Your task to perform on an android device: turn on translation in the chrome app Image 0: 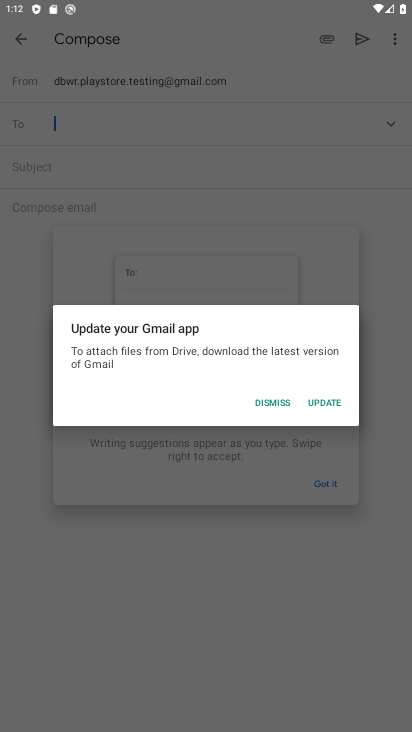
Step 0: click (315, 477)
Your task to perform on an android device: turn on translation in the chrome app Image 1: 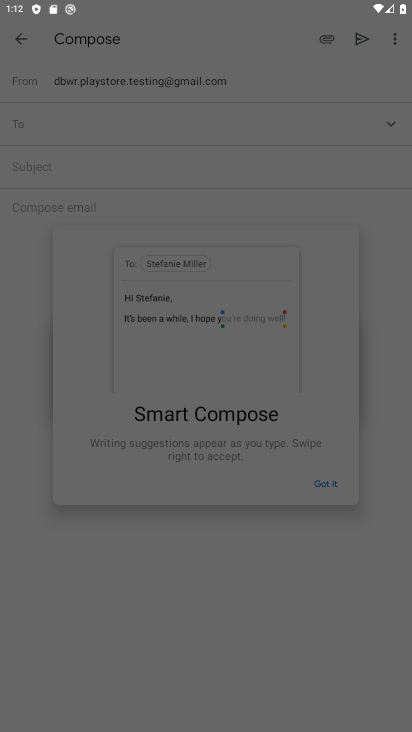
Step 1: press back button
Your task to perform on an android device: turn on translation in the chrome app Image 2: 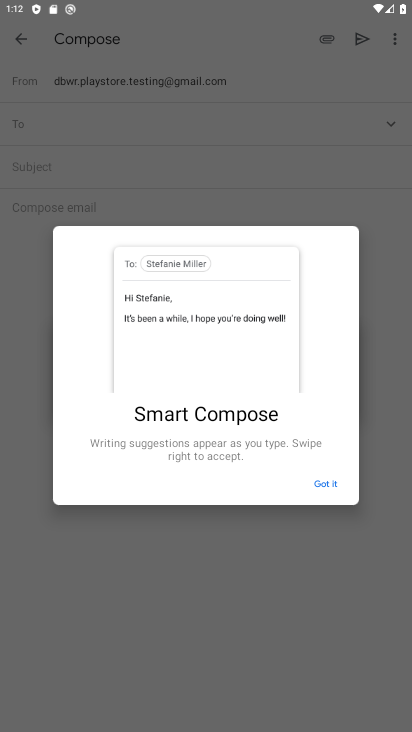
Step 2: press home button
Your task to perform on an android device: turn on translation in the chrome app Image 3: 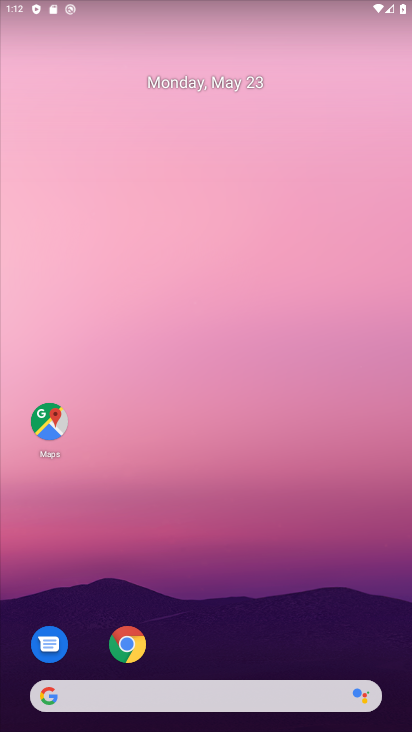
Step 3: drag from (211, 538) to (155, 3)
Your task to perform on an android device: turn on translation in the chrome app Image 4: 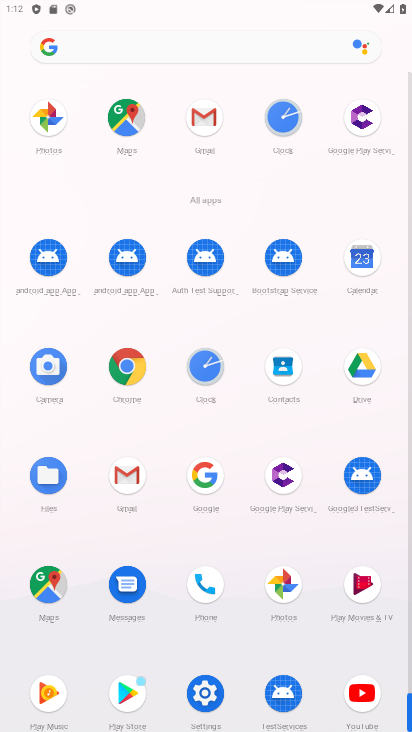
Step 4: drag from (12, 533) to (5, 181)
Your task to perform on an android device: turn on translation in the chrome app Image 5: 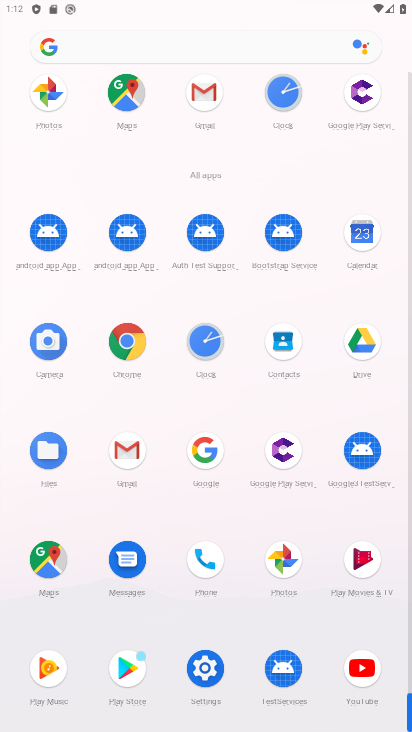
Step 5: click (122, 338)
Your task to perform on an android device: turn on translation in the chrome app Image 6: 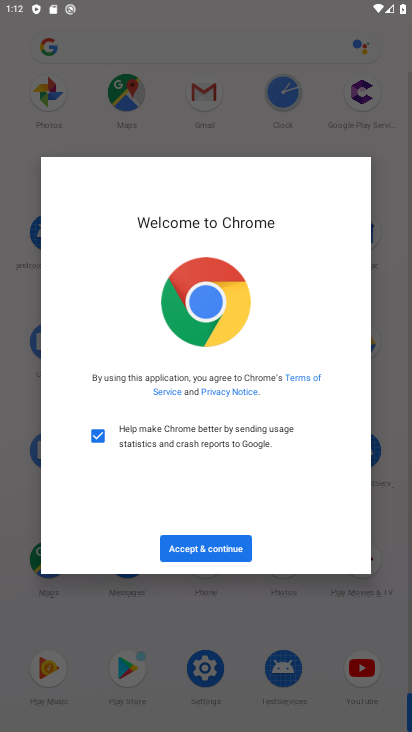
Step 6: click (218, 544)
Your task to perform on an android device: turn on translation in the chrome app Image 7: 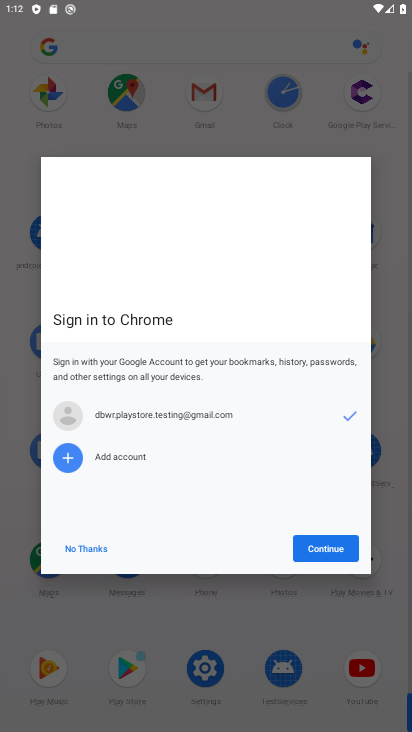
Step 7: click (313, 553)
Your task to perform on an android device: turn on translation in the chrome app Image 8: 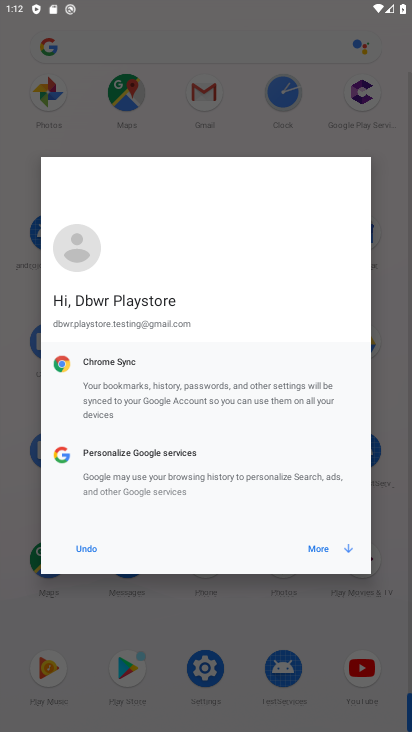
Step 8: click (315, 546)
Your task to perform on an android device: turn on translation in the chrome app Image 9: 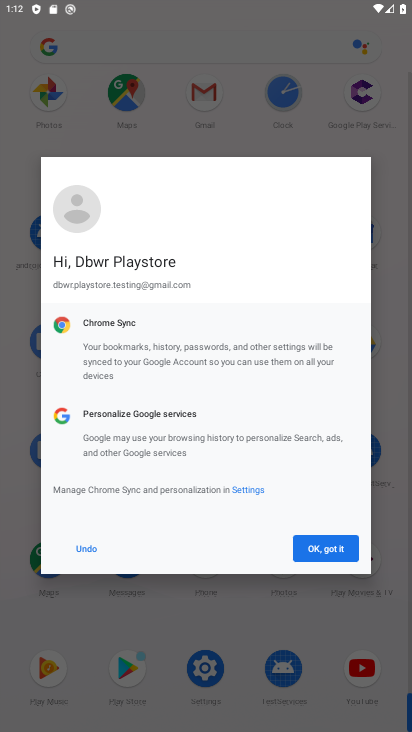
Step 9: click (309, 550)
Your task to perform on an android device: turn on translation in the chrome app Image 10: 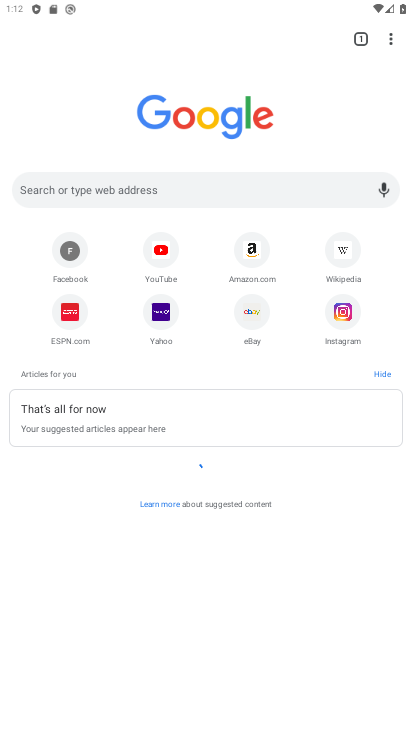
Step 10: drag from (388, 37) to (259, 326)
Your task to perform on an android device: turn on translation in the chrome app Image 11: 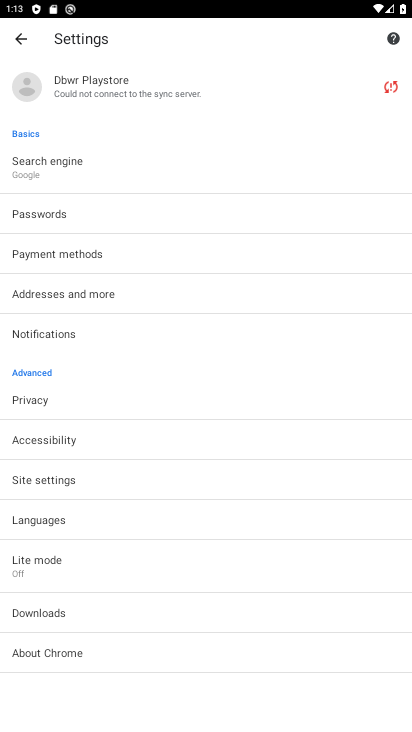
Step 11: drag from (169, 537) to (191, 162)
Your task to perform on an android device: turn on translation in the chrome app Image 12: 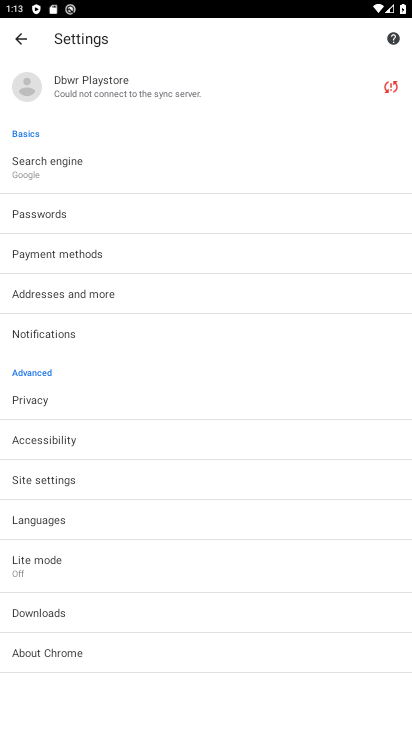
Step 12: click (89, 567)
Your task to perform on an android device: turn on translation in the chrome app Image 13: 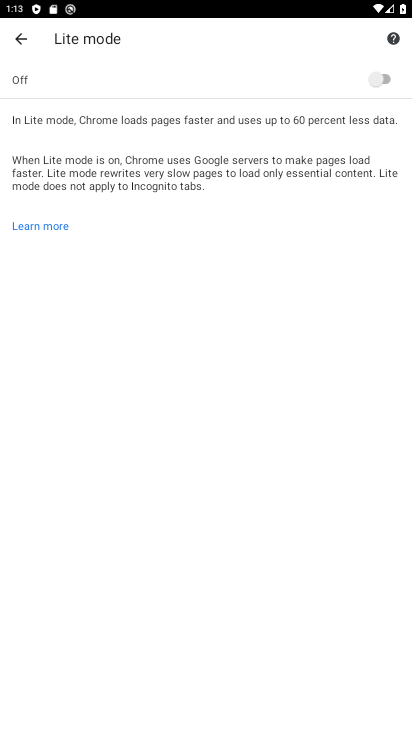
Step 13: click (374, 74)
Your task to perform on an android device: turn on translation in the chrome app Image 14: 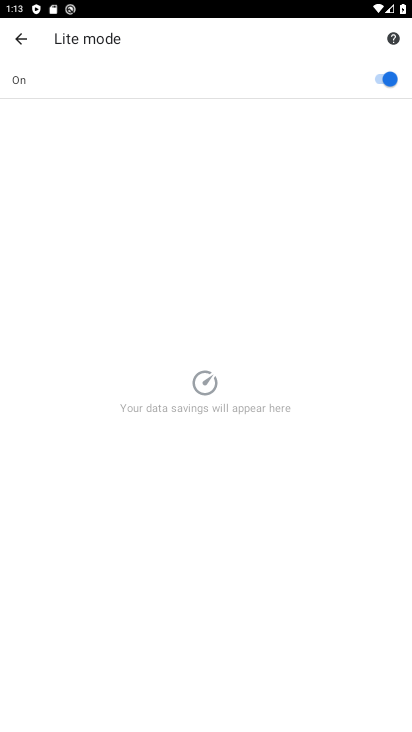
Step 14: click (385, 77)
Your task to perform on an android device: turn on translation in the chrome app Image 15: 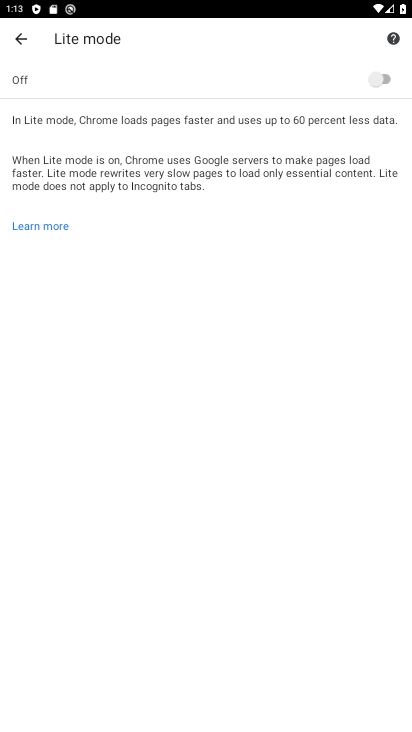
Step 15: click (23, 36)
Your task to perform on an android device: turn on translation in the chrome app Image 16: 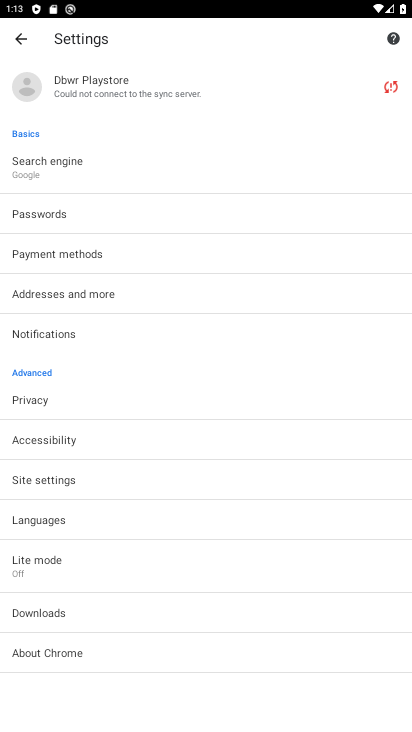
Step 16: click (108, 517)
Your task to perform on an android device: turn on translation in the chrome app Image 17: 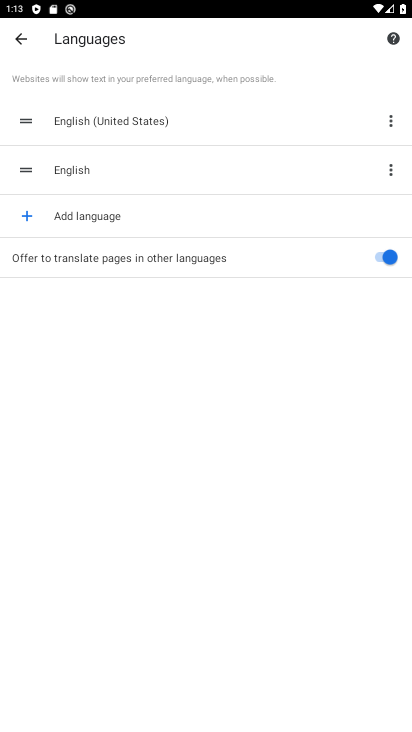
Step 17: task complete